Your task to perform on an android device: refresh tabs in the chrome app Image 0: 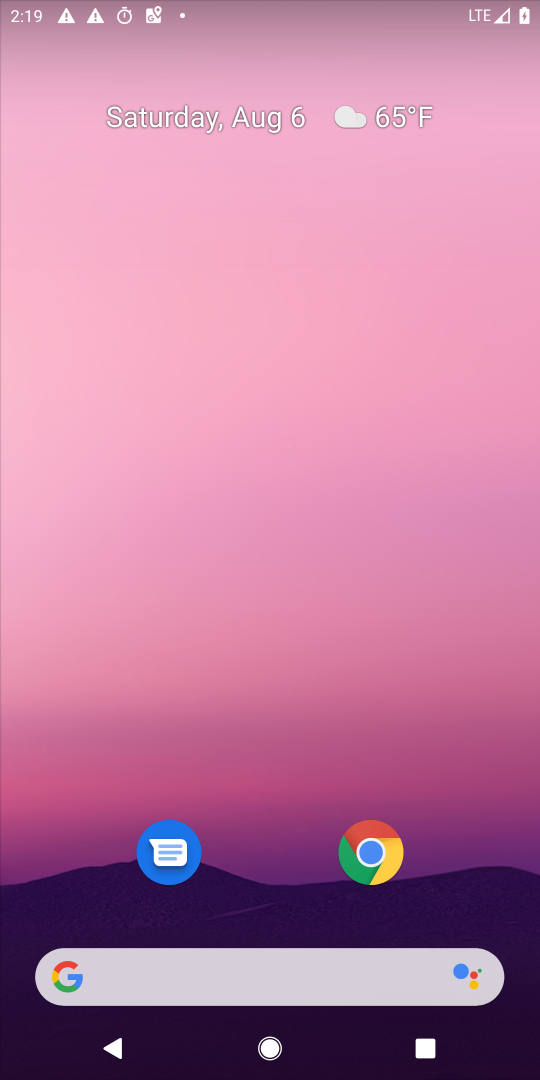
Step 0: drag from (324, 870) to (233, 169)
Your task to perform on an android device: refresh tabs in the chrome app Image 1: 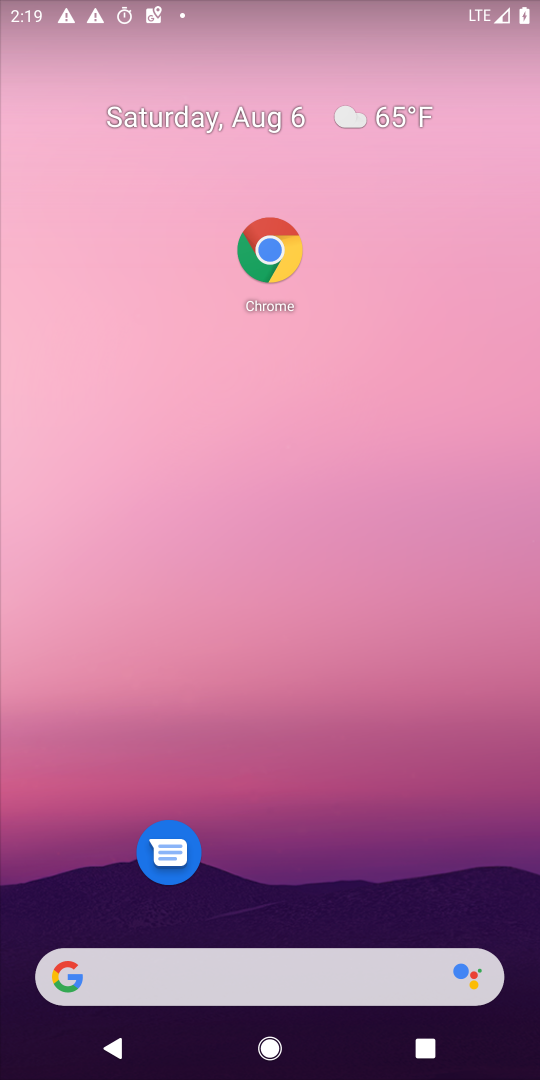
Step 1: drag from (318, 906) to (255, 218)
Your task to perform on an android device: refresh tabs in the chrome app Image 2: 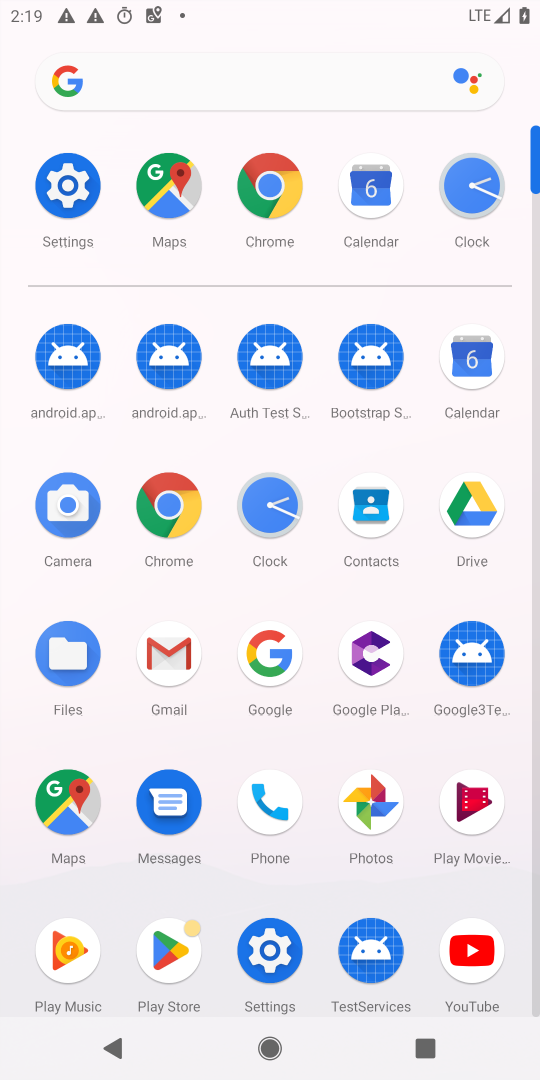
Step 2: click (288, 179)
Your task to perform on an android device: refresh tabs in the chrome app Image 3: 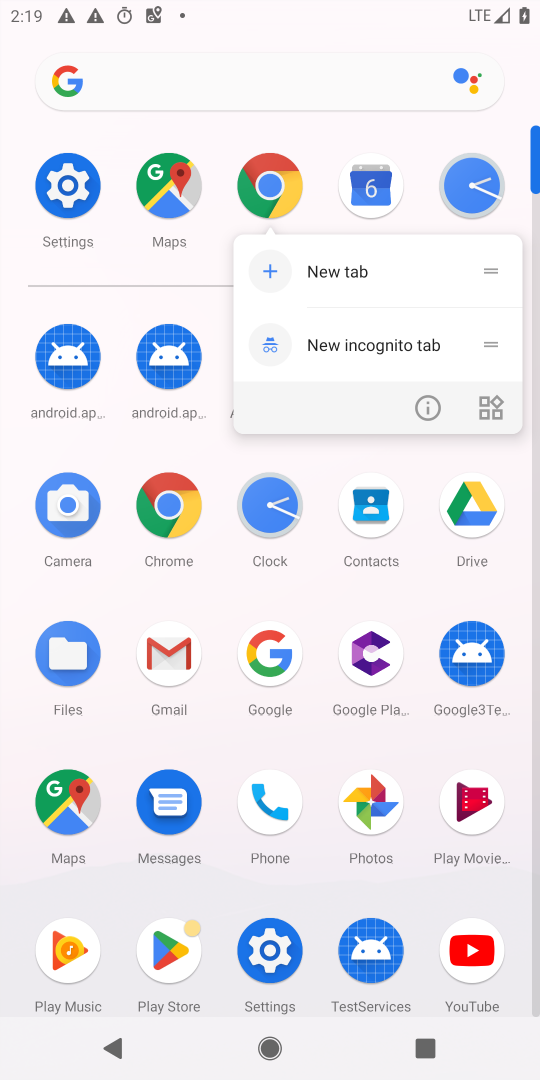
Step 3: click (169, 514)
Your task to perform on an android device: refresh tabs in the chrome app Image 4: 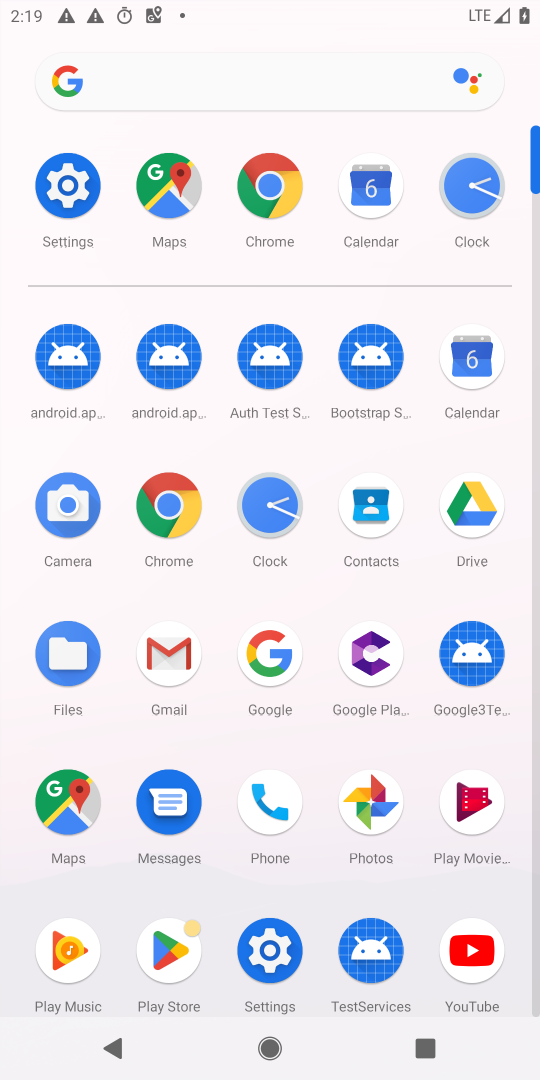
Step 4: click (159, 505)
Your task to perform on an android device: refresh tabs in the chrome app Image 5: 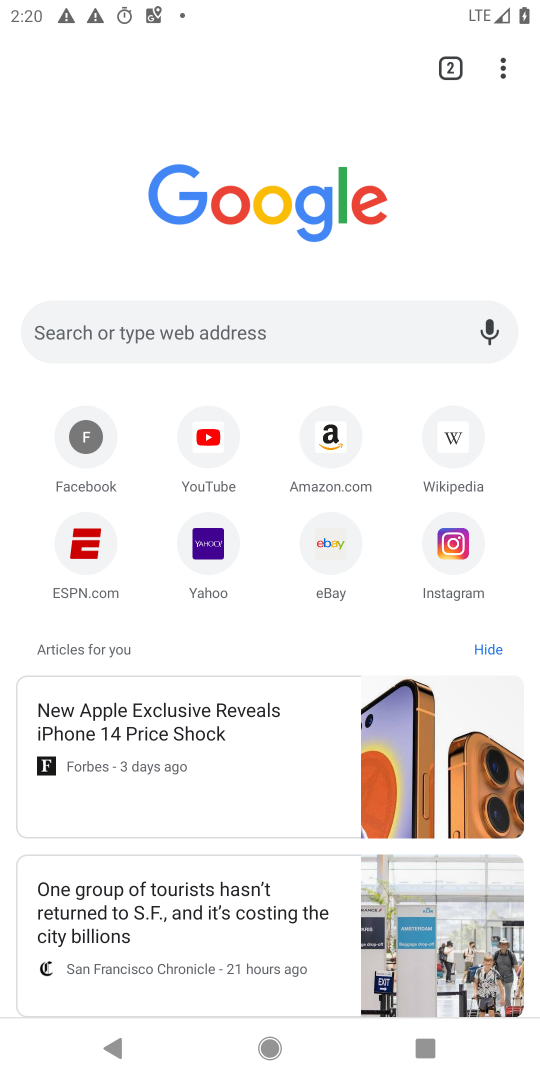
Step 5: click (506, 77)
Your task to perform on an android device: refresh tabs in the chrome app Image 6: 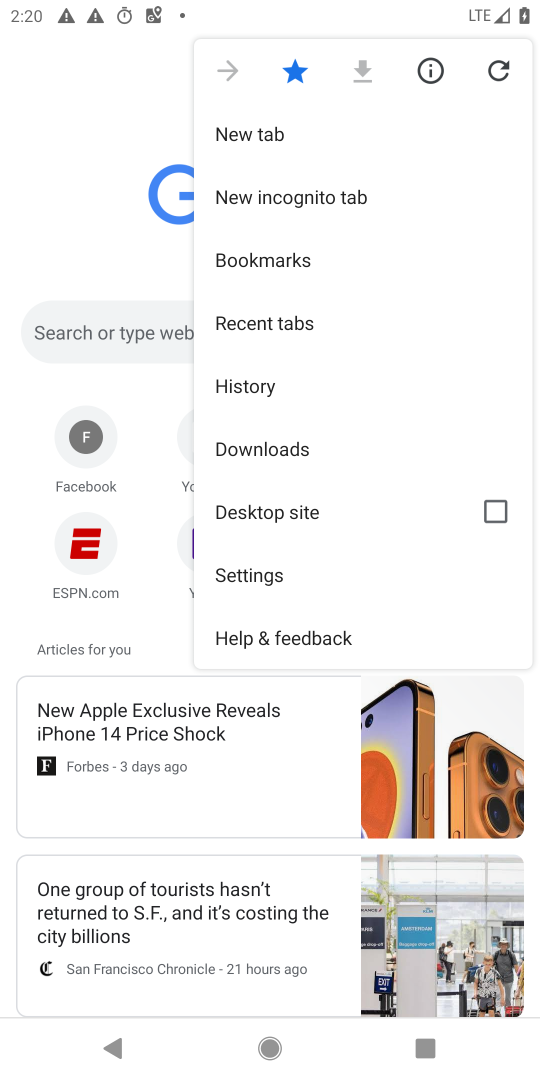
Step 6: click (507, 71)
Your task to perform on an android device: refresh tabs in the chrome app Image 7: 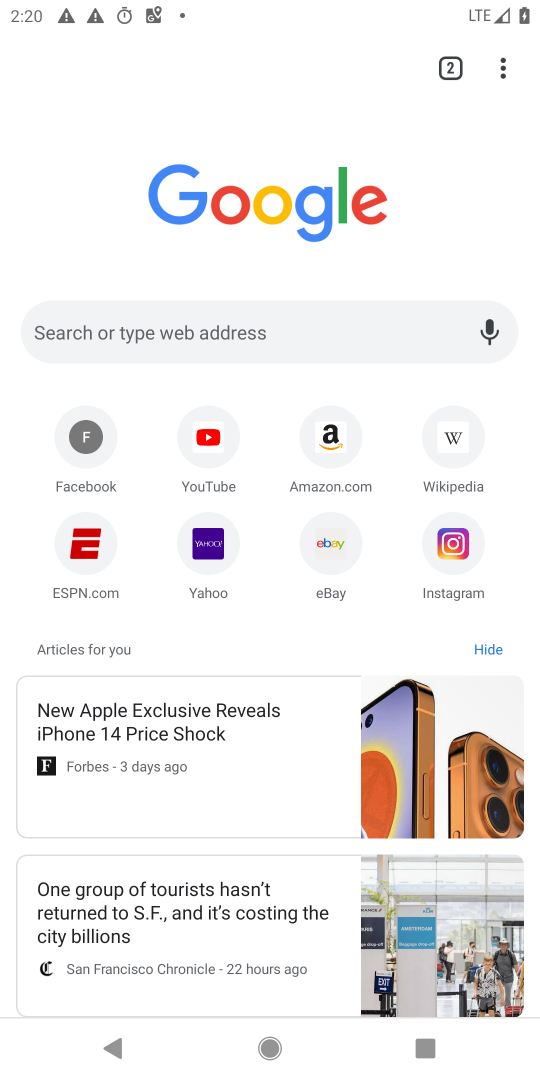
Step 7: task complete